Your task to perform on an android device: View the shopping cart on target.com. Search for razer blackwidow on target.com, select the first entry, and add it to the cart. Image 0: 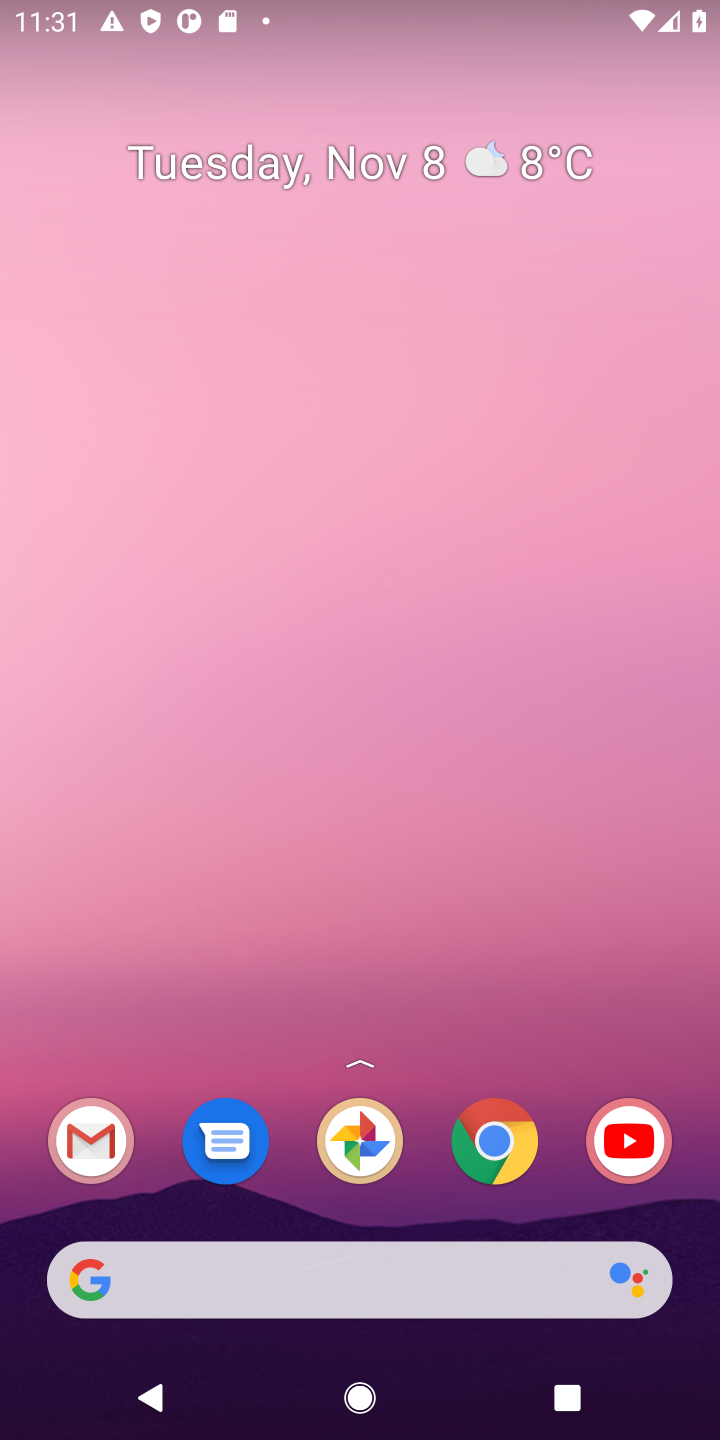
Step 0: click (490, 1153)
Your task to perform on an android device: View the shopping cart on target.com. Search for razer blackwidow on target.com, select the first entry, and add it to the cart. Image 1: 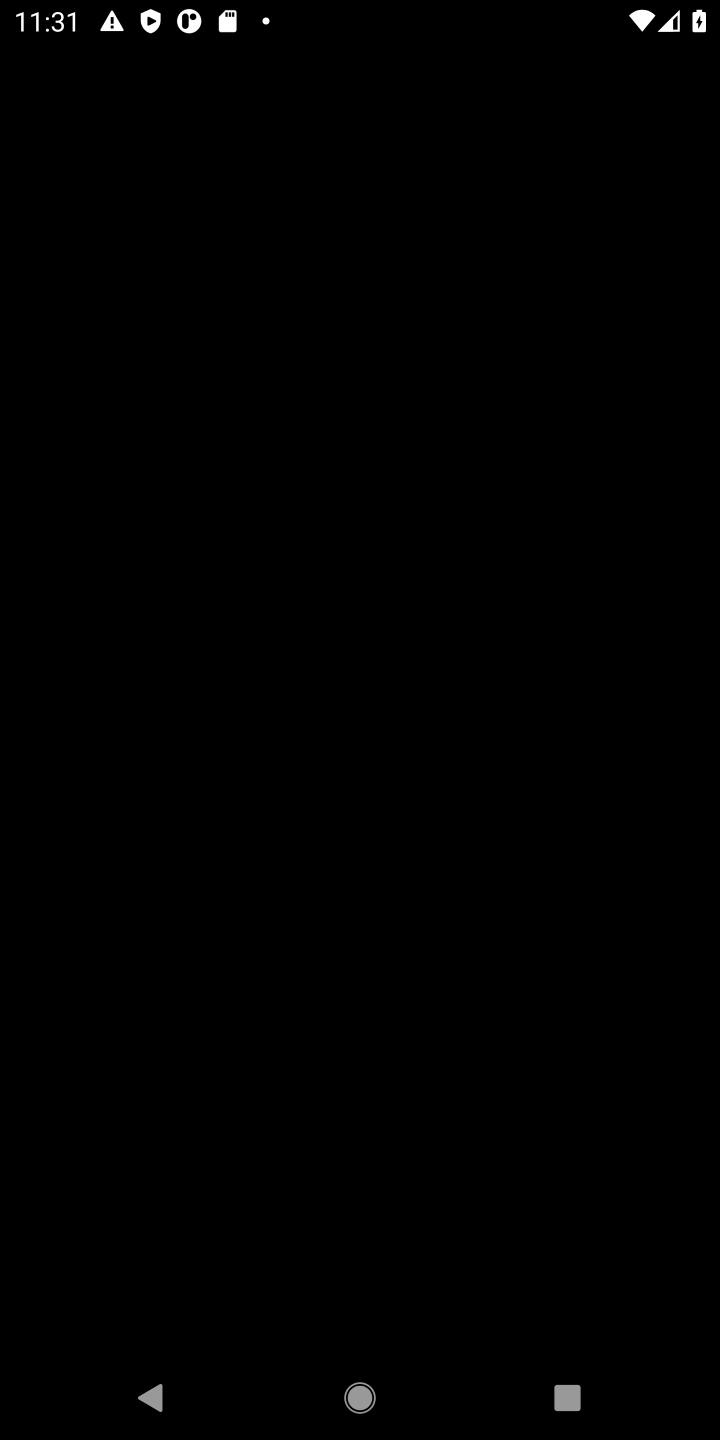
Step 1: press home button
Your task to perform on an android device: View the shopping cart on target.com. Search for razer blackwidow on target.com, select the first entry, and add it to the cart. Image 2: 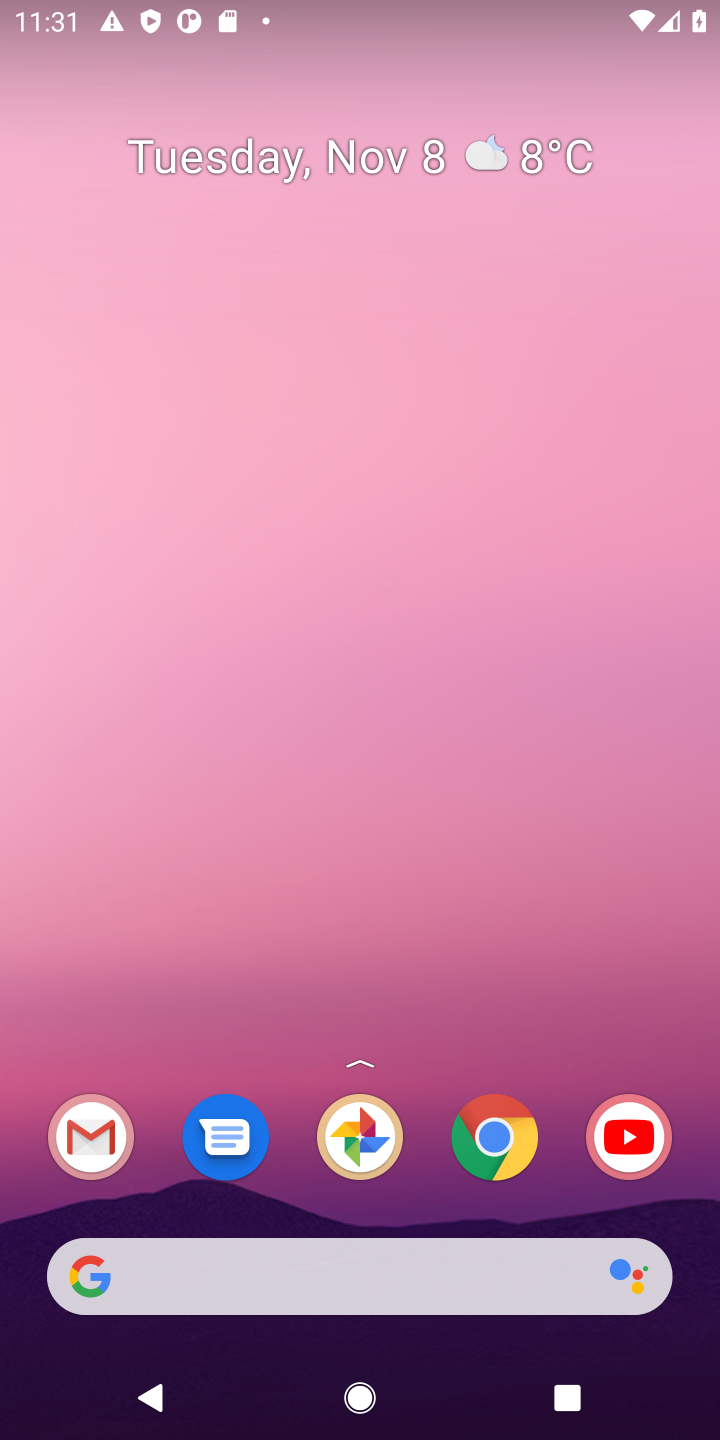
Step 2: click (507, 1141)
Your task to perform on an android device: View the shopping cart on target.com. Search for razer blackwidow on target.com, select the first entry, and add it to the cart. Image 3: 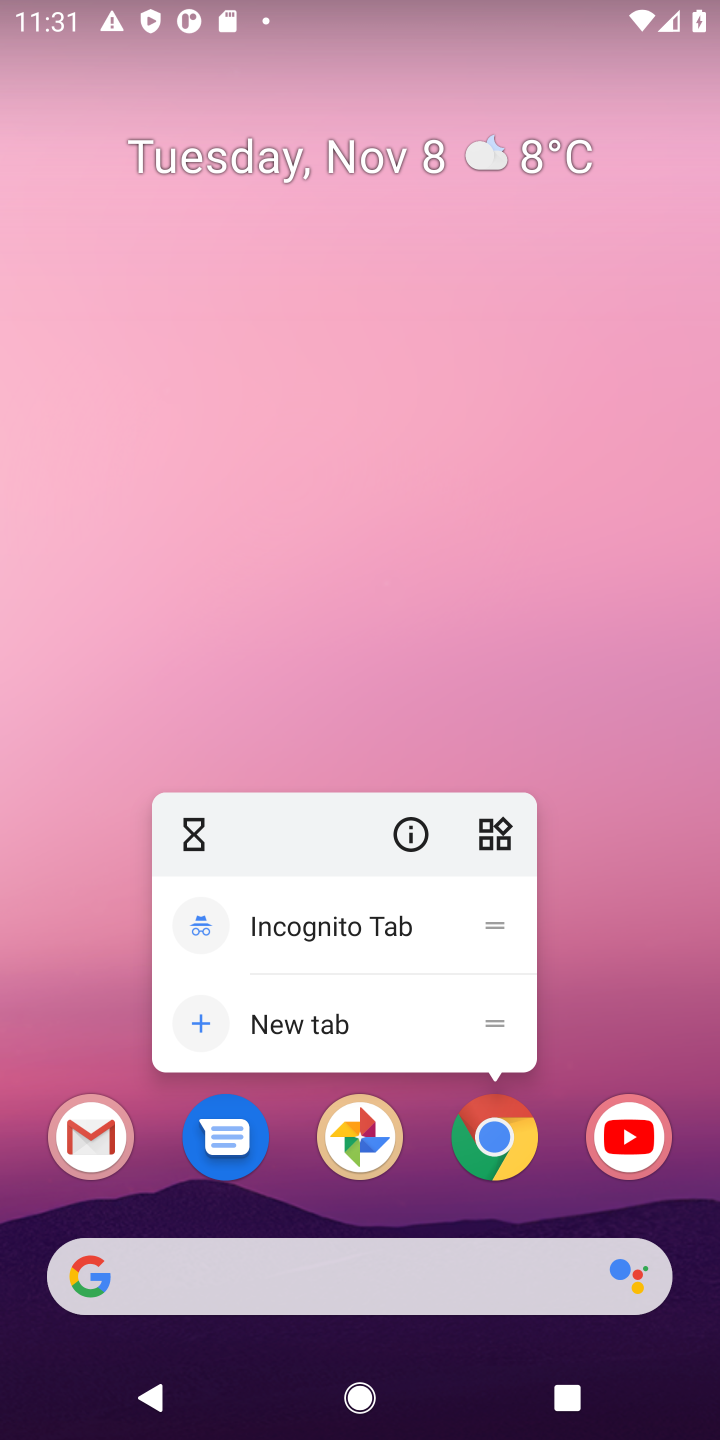
Step 3: click (507, 1141)
Your task to perform on an android device: View the shopping cart on target.com. Search for razer blackwidow on target.com, select the first entry, and add it to the cart. Image 4: 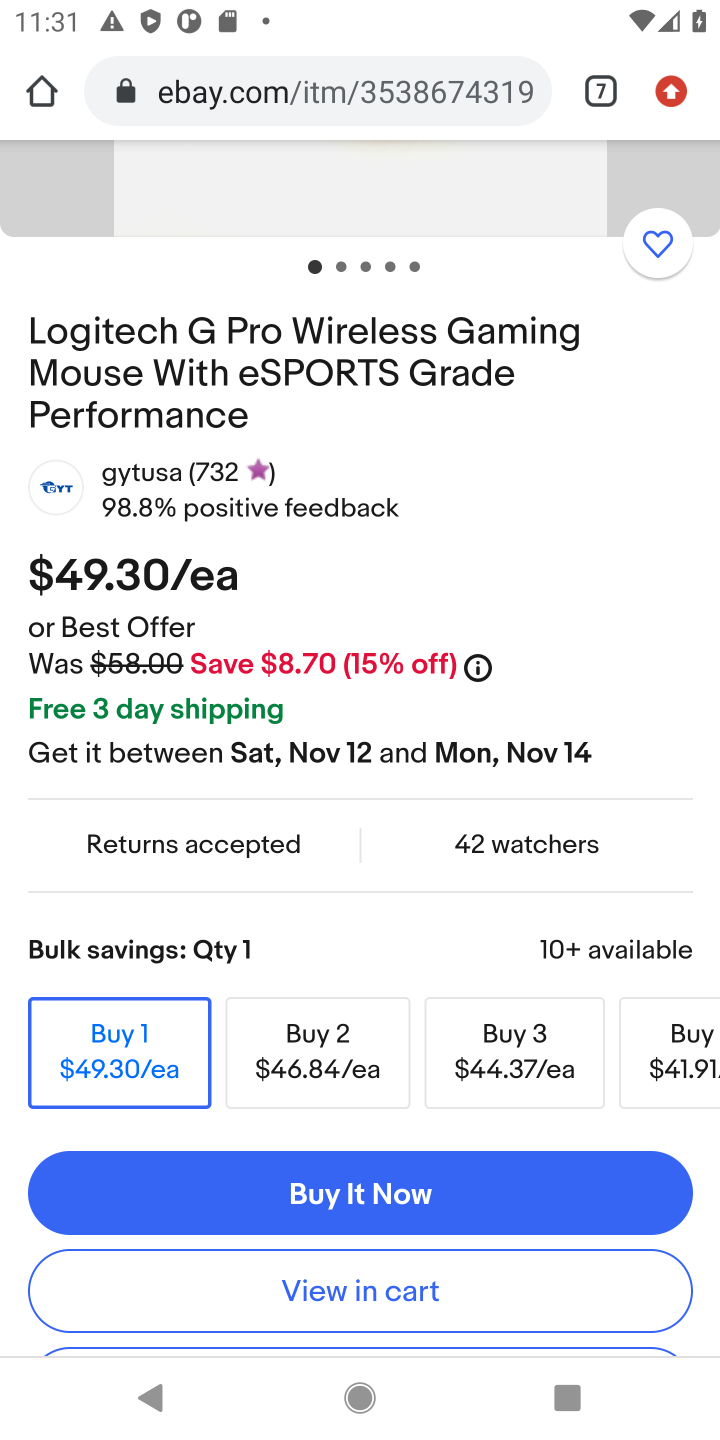
Step 4: click (608, 92)
Your task to perform on an android device: View the shopping cart on target.com. Search for razer blackwidow on target.com, select the first entry, and add it to the cart. Image 5: 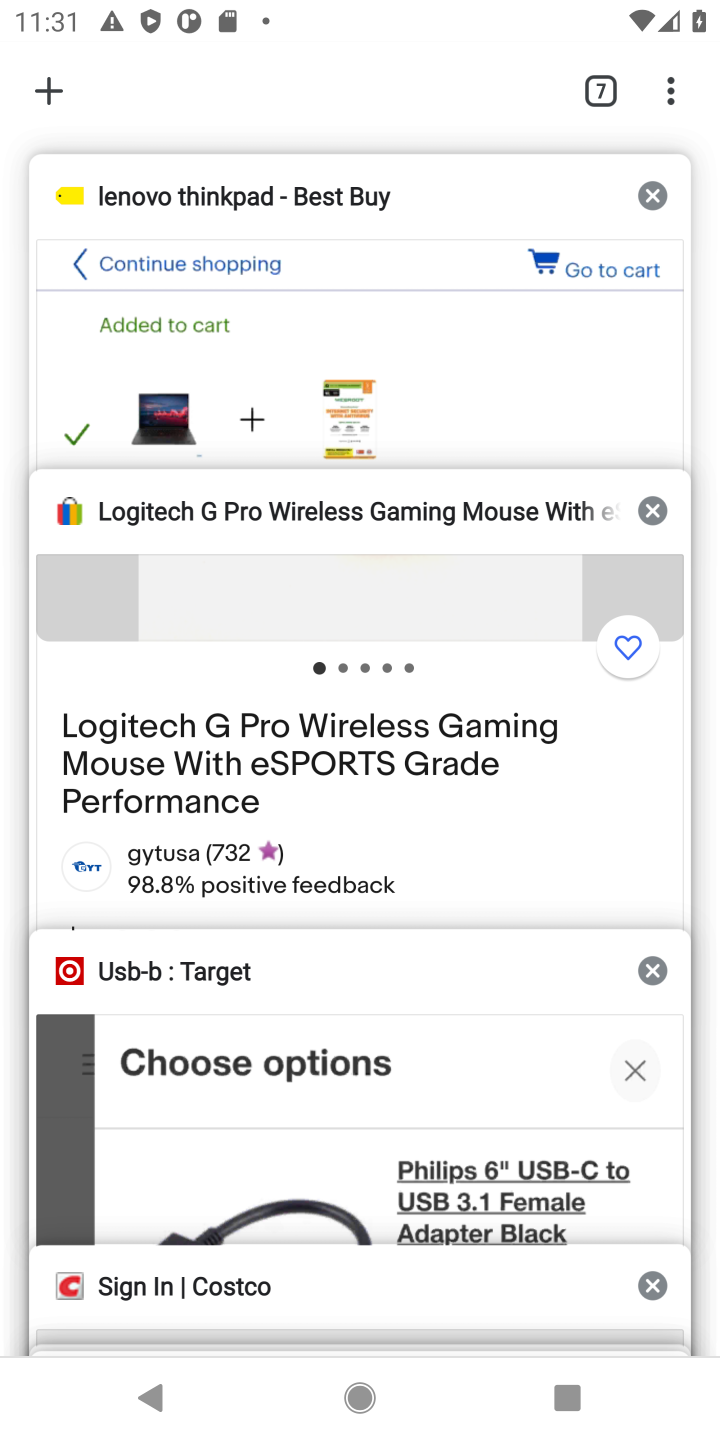
Step 5: click (314, 1050)
Your task to perform on an android device: View the shopping cart on target.com. Search for razer blackwidow on target.com, select the first entry, and add it to the cart. Image 6: 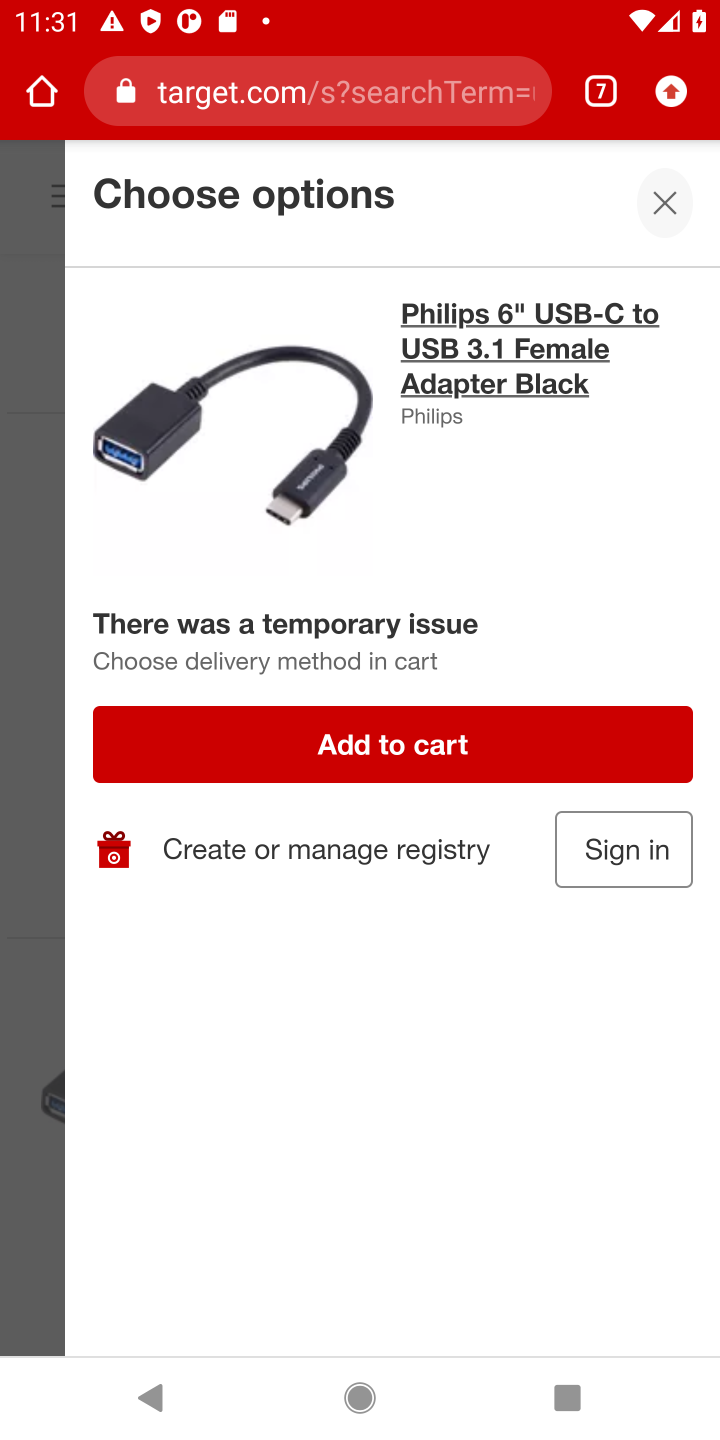
Step 6: click (663, 197)
Your task to perform on an android device: View the shopping cart on target.com. Search for razer blackwidow on target.com, select the first entry, and add it to the cart. Image 7: 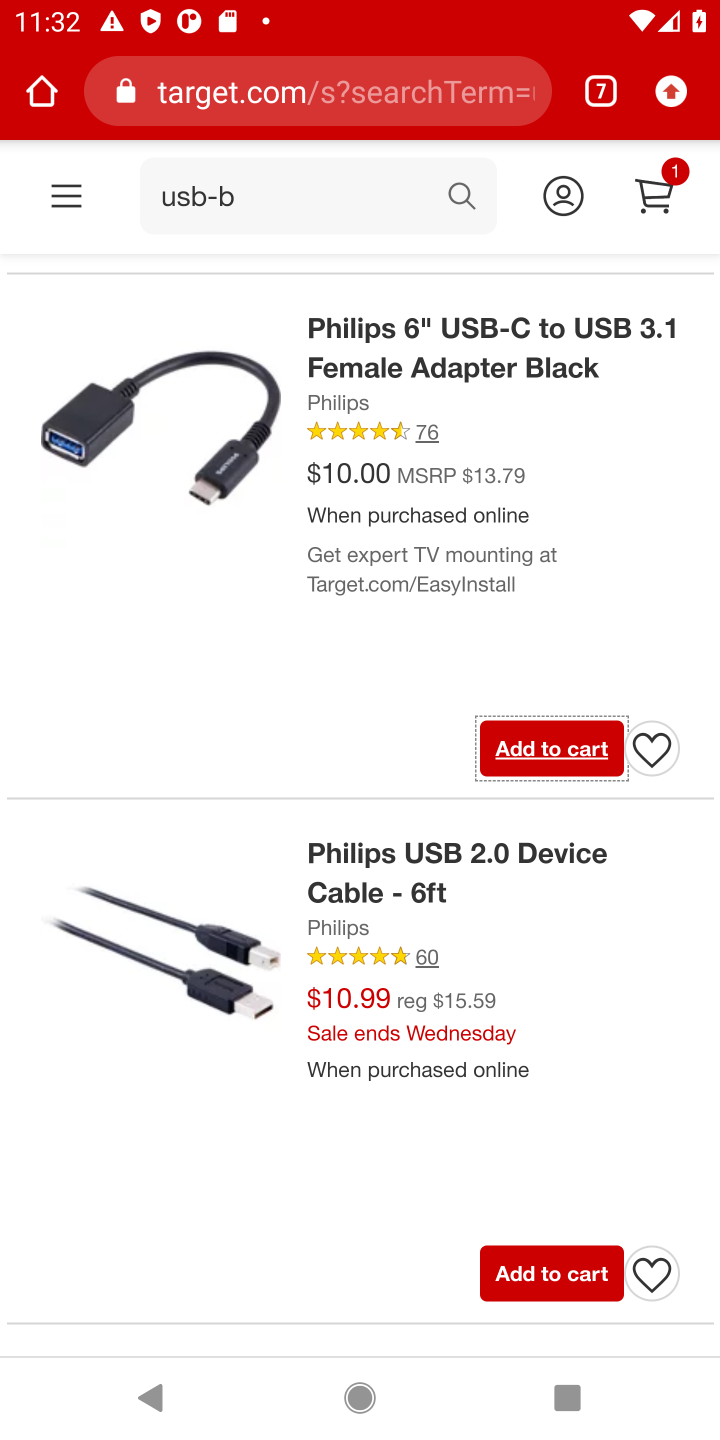
Step 7: click (382, 203)
Your task to perform on an android device: View the shopping cart on target.com. Search for razer blackwidow on target.com, select the first entry, and add it to the cart. Image 8: 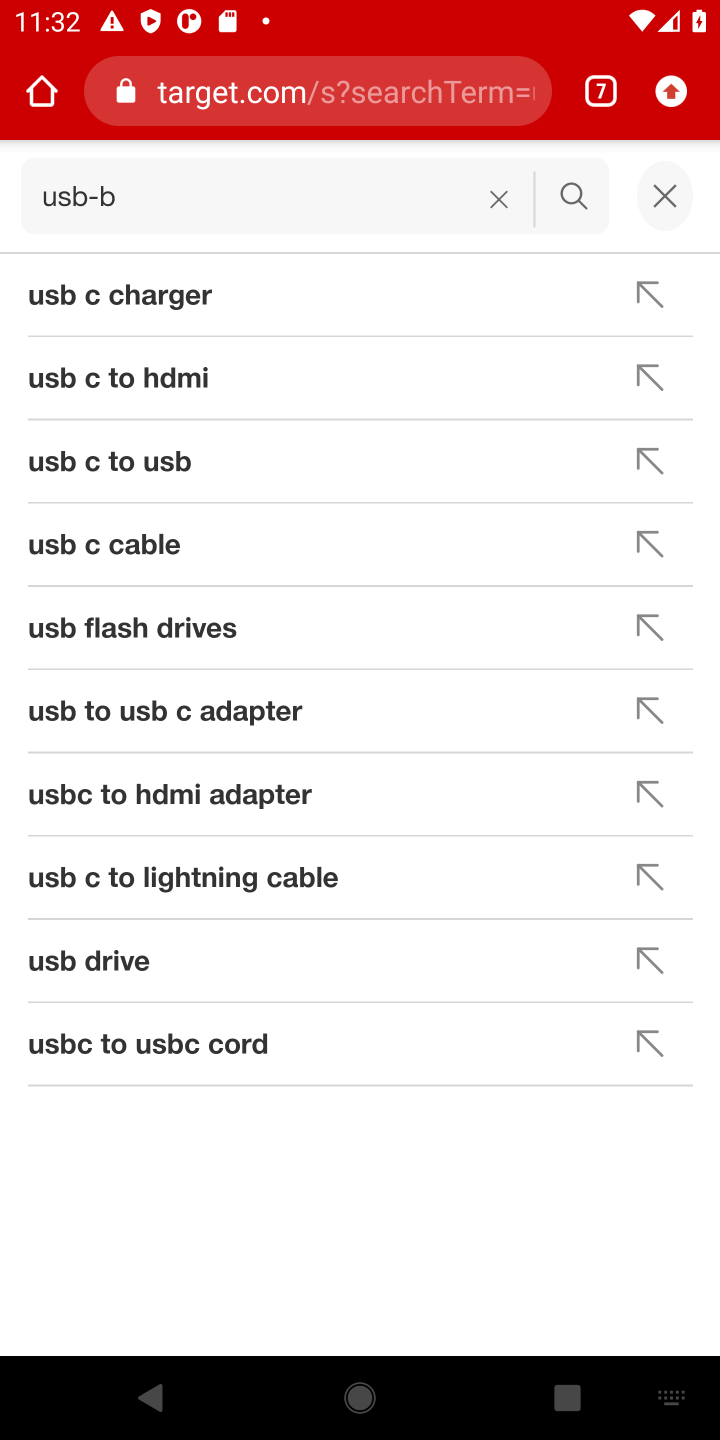
Step 8: click (495, 206)
Your task to perform on an android device: View the shopping cart on target.com. Search for razer blackwidow on target.com, select the first entry, and add it to the cart. Image 9: 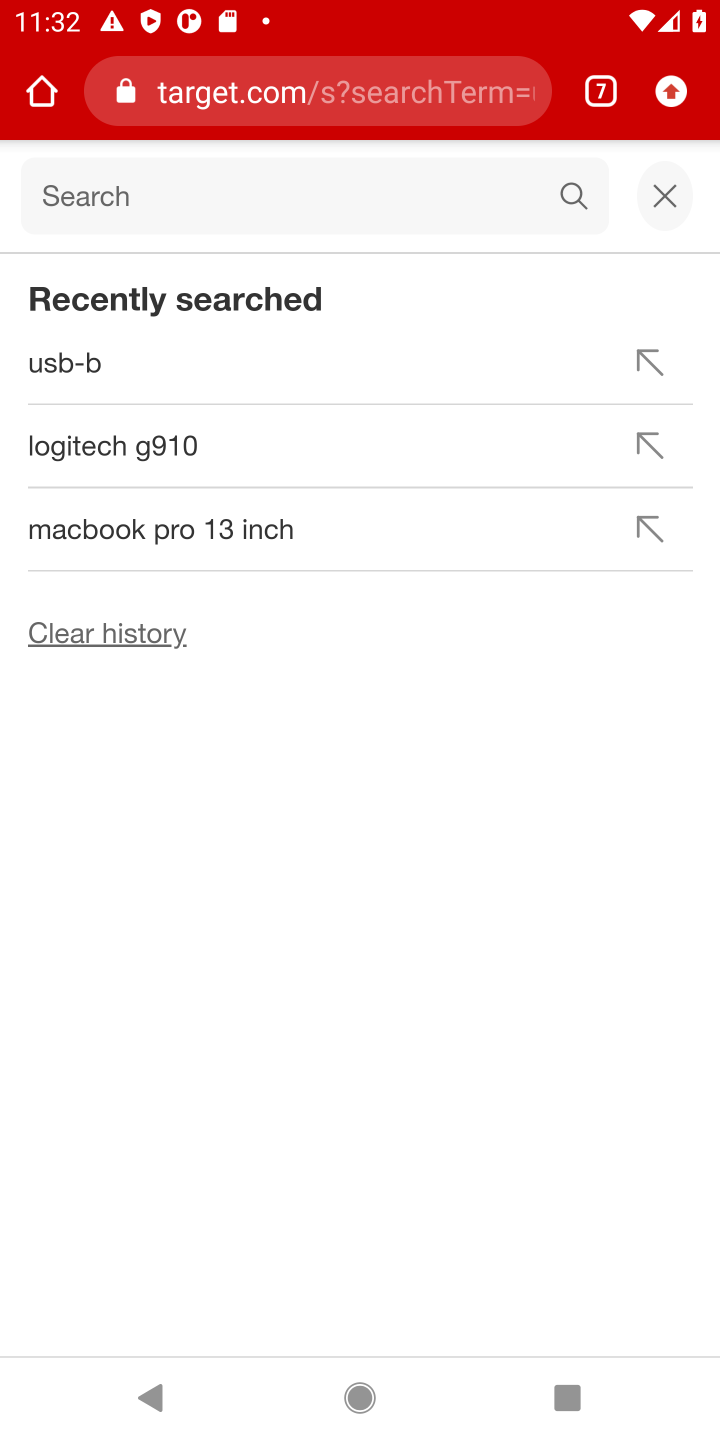
Step 9: click (221, 207)
Your task to perform on an android device: View the shopping cart on target.com. Search for razer blackwidow on target.com, select the first entry, and add it to the cart. Image 10: 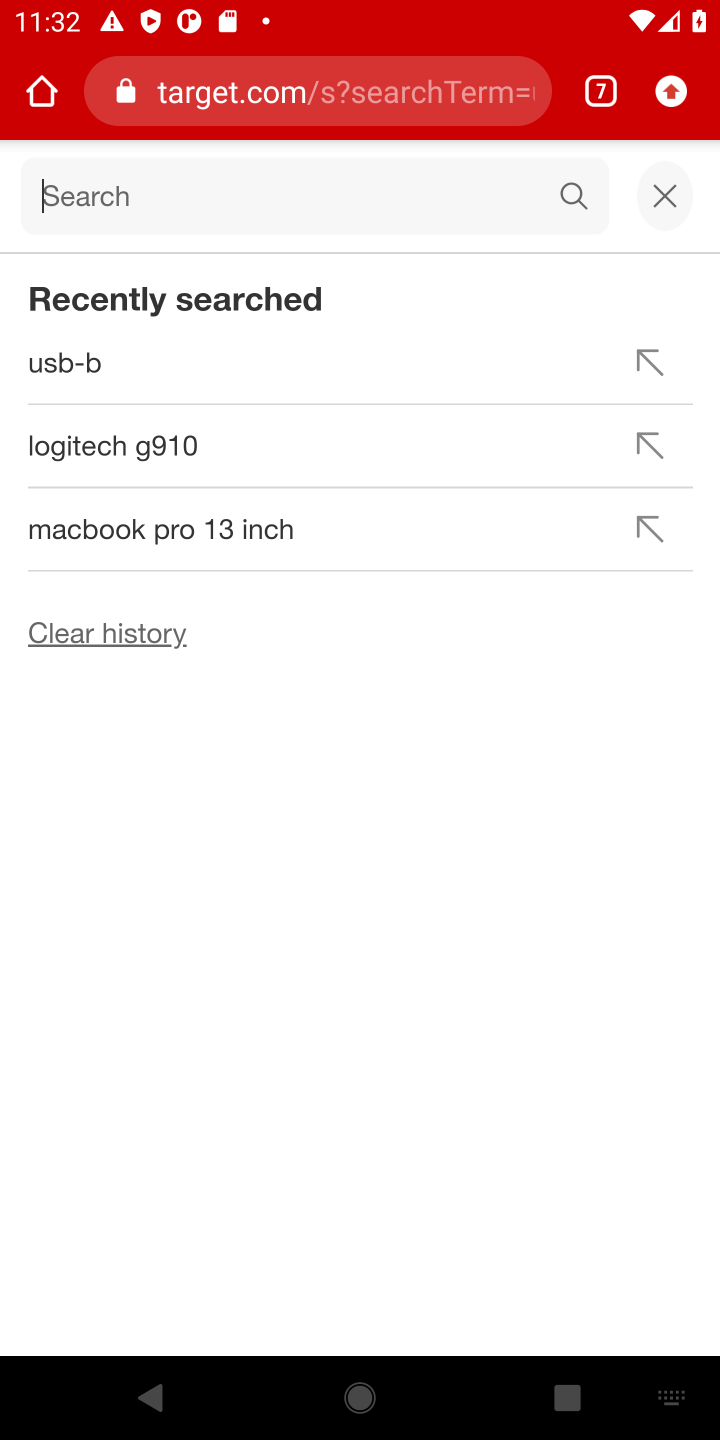
Step 10: type "razer blackwidow "
Your task to perform on an android device: View the shopping cart on target.com. Search for razer blackwidow on target.com, select the first entry, and add it to the cart. Image 11: 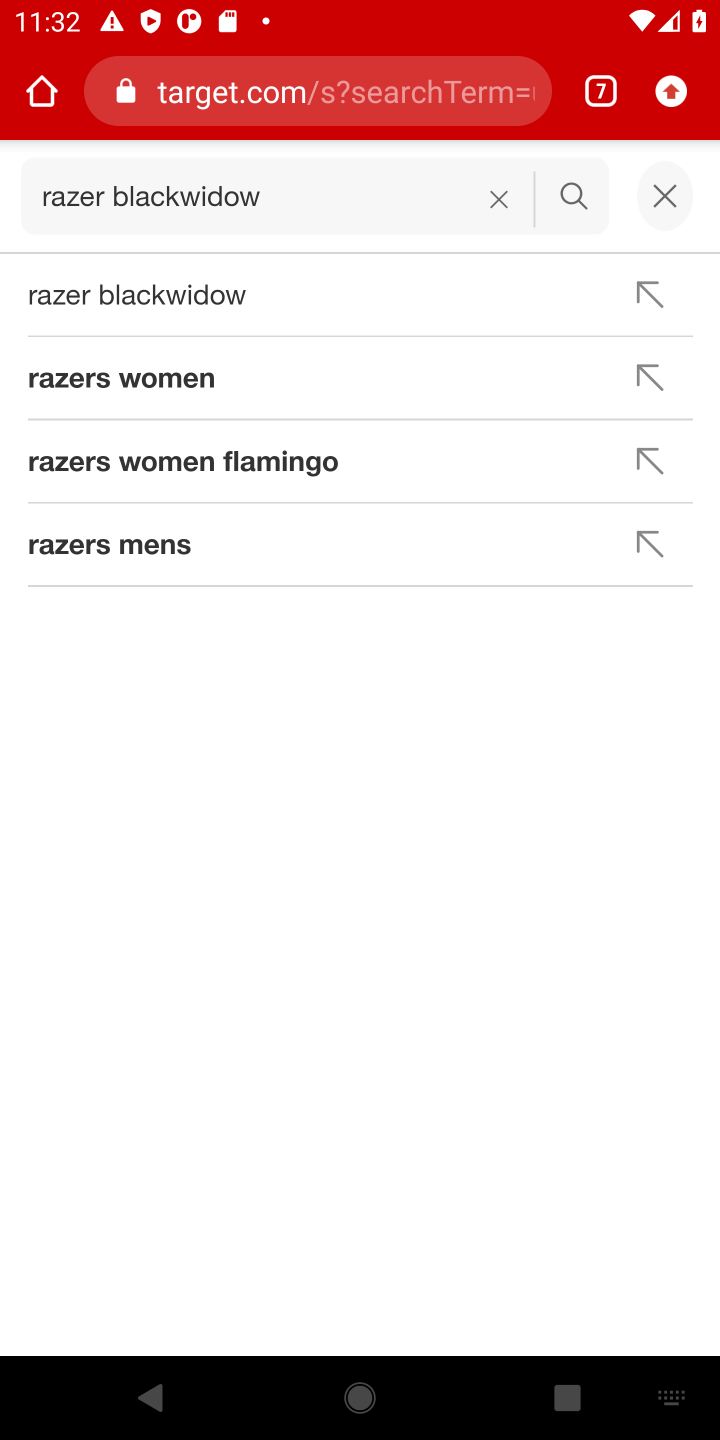
Step 11: click (186, 281)
Your task to perform on an android device: View the shopping cart on target.com. Search for razer blackwidow on target.com, select the first entry, and add it to the cart. Image 12: 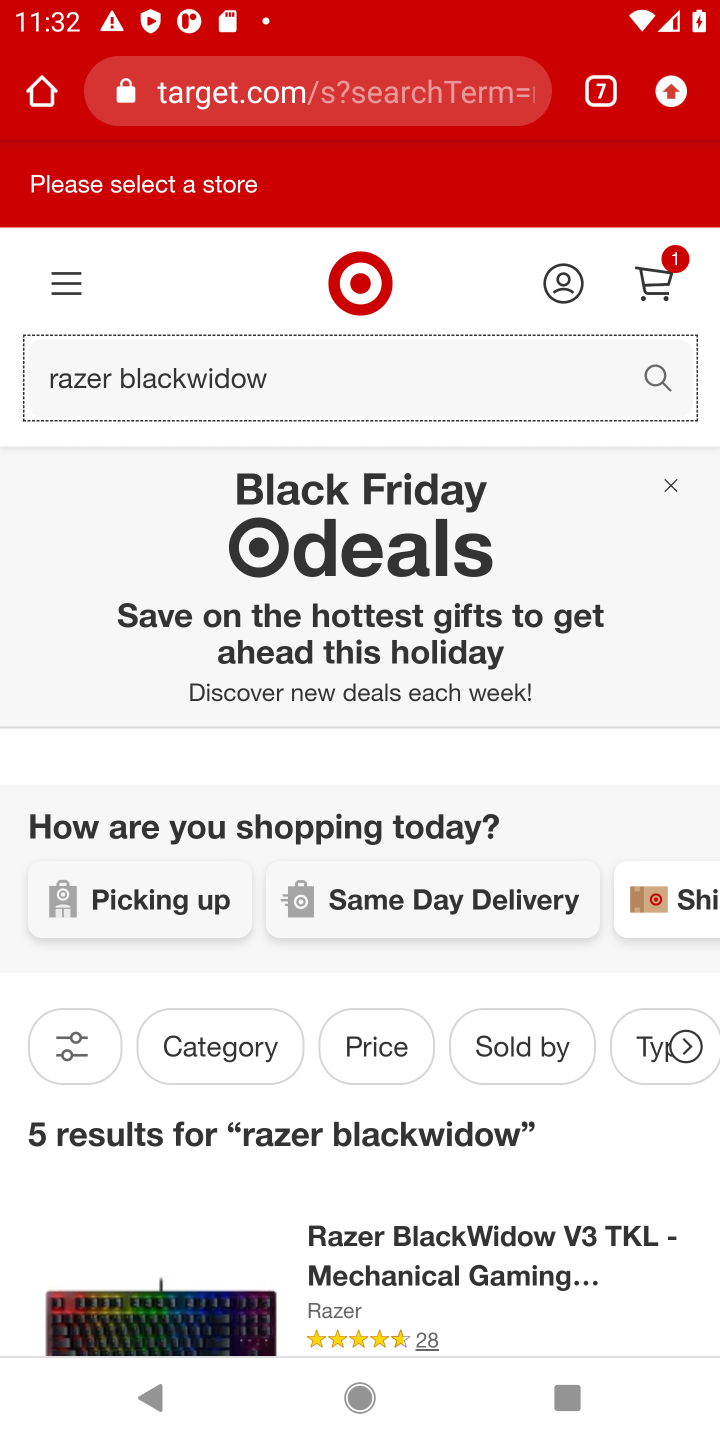
Step 12: drag from (355, 1238) to (470, 479)
Your task to perform on an android device: View the shopping cart on target.com. Search for razer blackwidow on target.com, select the first entry, and add it to the cart. Image 13: 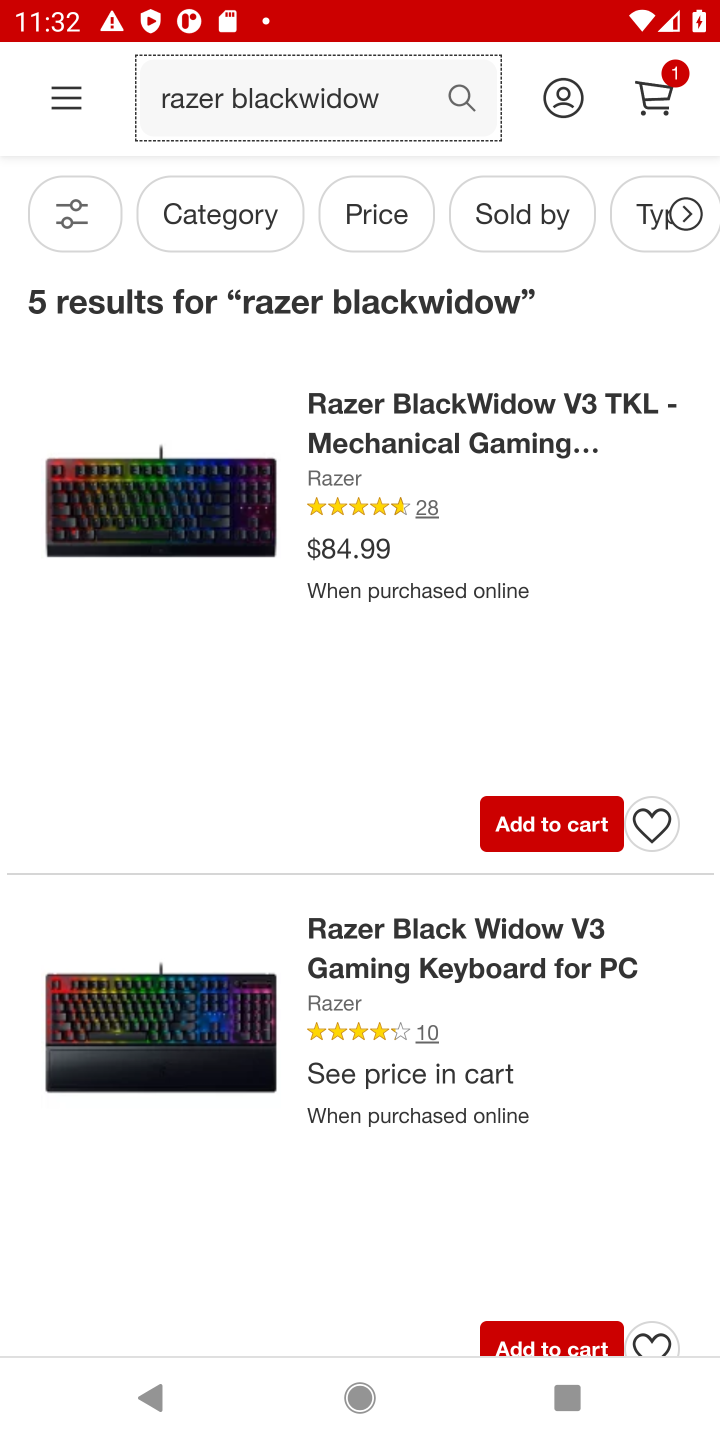
Step 13: click (544, 825)
Your task to perform on an android device: View the shopping cart on target.com. Search for razer blackwidow on target.com, select the first entry, and add it to the cart. Image 14: 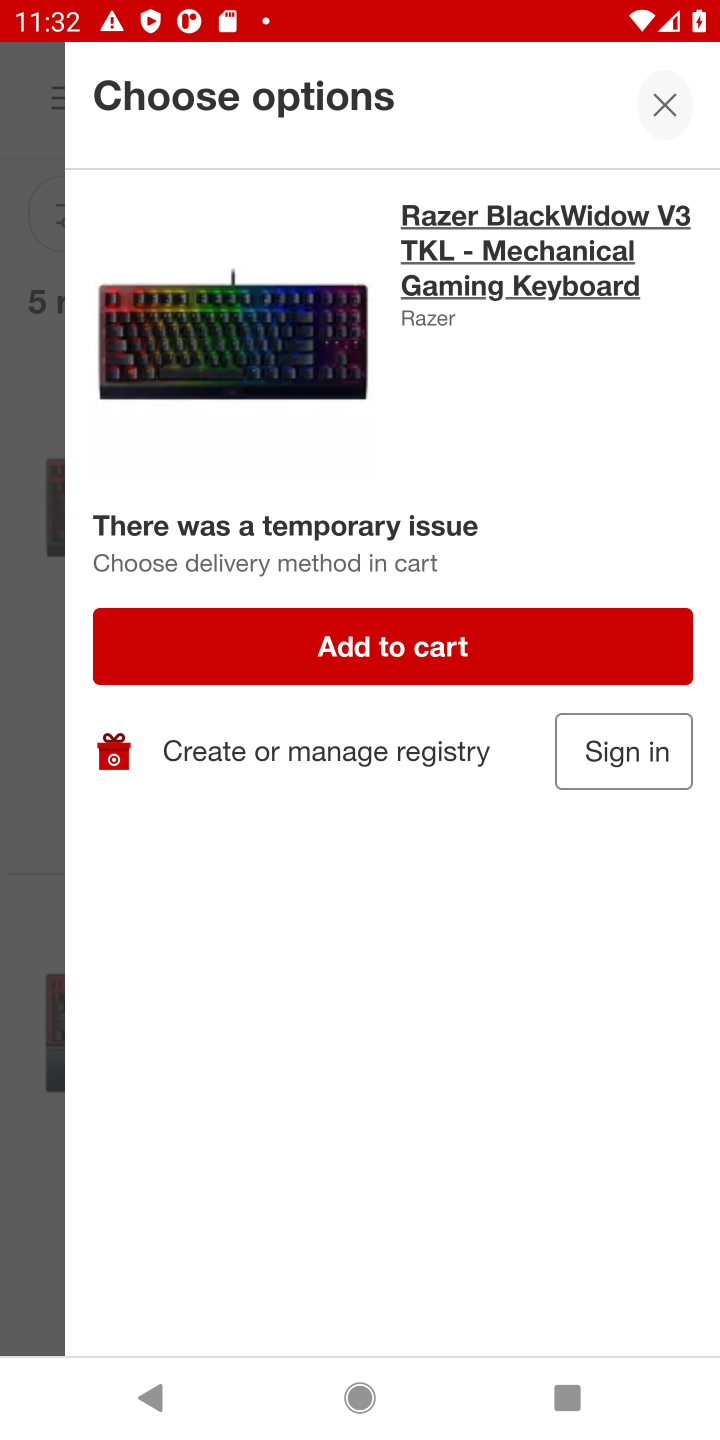
Step 14: task complete